Your task to perform on an android device: turn off priority inbox in the gmail app Image 0: 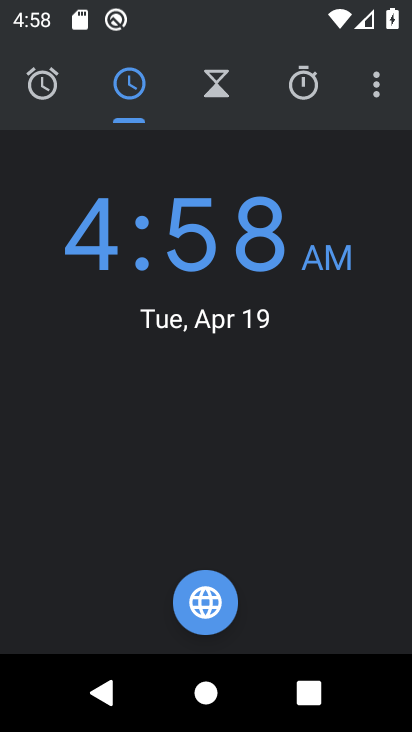
Step 0: press home button
Your task to perform on an android device: turn off priority inbox in the gmail app Image 1: 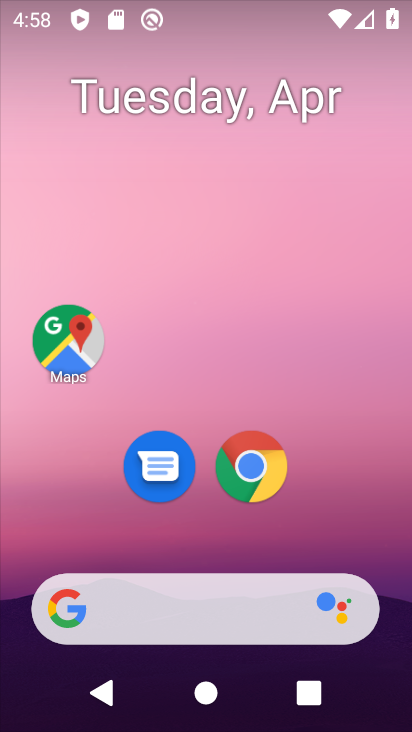
Step 1: drag from (207, 550) to (325, 0)
Your task to perform on an android device: turn off priority inbox in the gmail app Image 2: 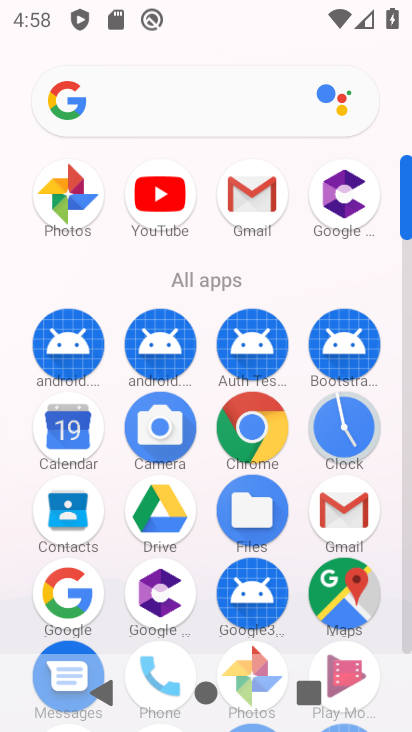
Step 2: click (325, 520)
Your task to perform on an android device: turn off priority inbox in the gmail app Image 3: 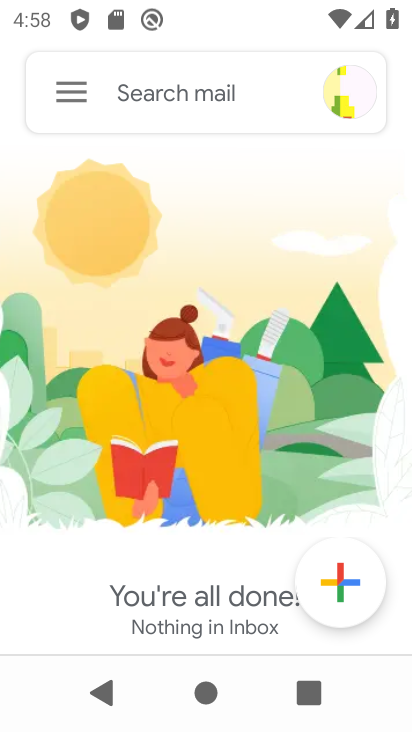
Step 3: click (61, 101)
Your task to perform on an android device: turn off priority inbox in the gmail app Image 4: 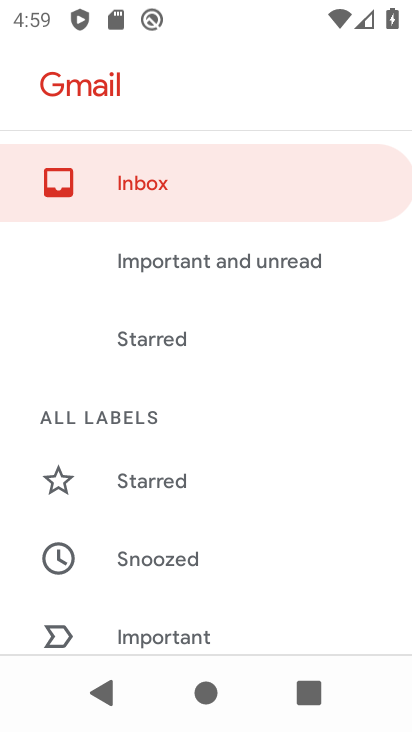
Step 4: drag from (147, 615) to (291, 14)
Your task to perform on an android device: turn off priority inbox in the gmail app Image 5: 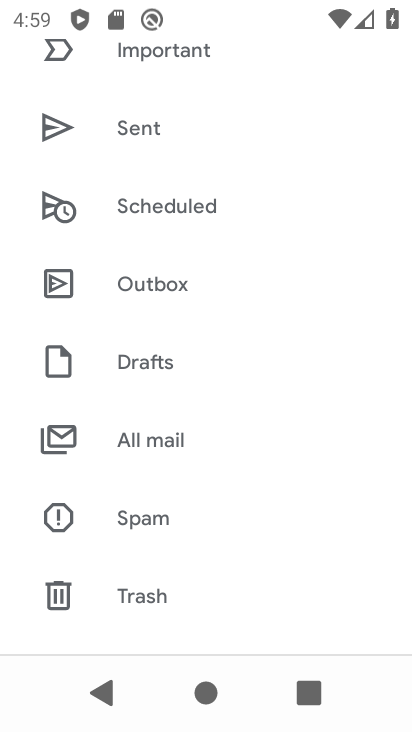
Step 5: drag from (130, 558) to (308, 23)
Your task to perform on an android device: turn off priority inbox in the gmail app Image 6: 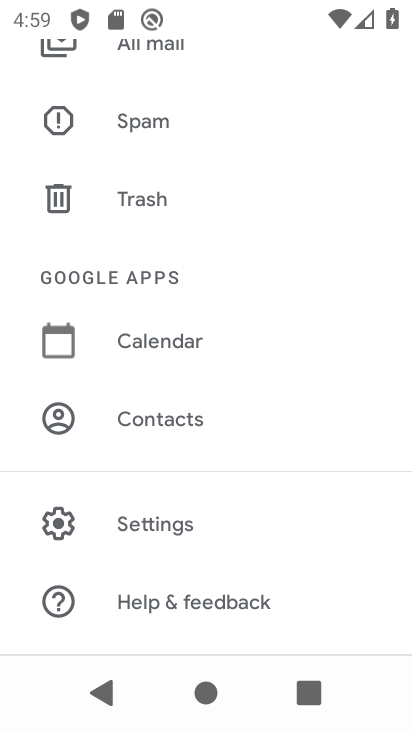
Step 6: click (122, 517)
Your task to perform on an android device: turn off priority inbox in the gmail app Image 7: 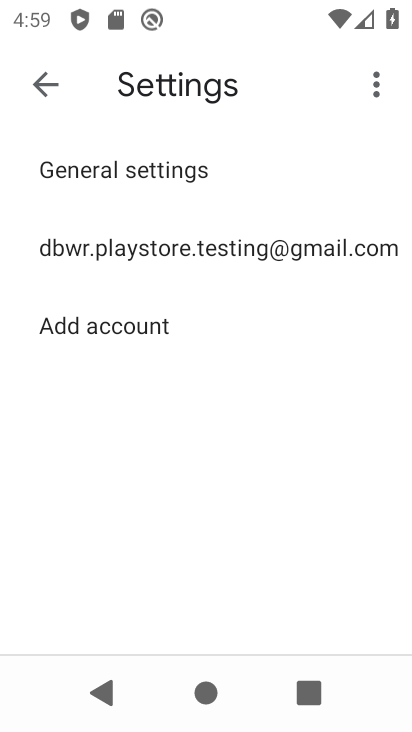
Step 7: click (86, 242)
Your task to perform on an android device: turn off priority inbox in the gmail app Image 8: 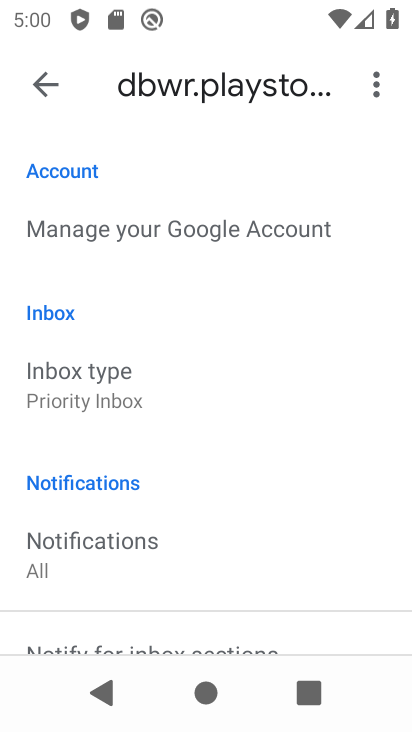
Step 8: click (110, 376)
Your task to perform on an android device: turn off priority inbox in the gmail app Image 9: 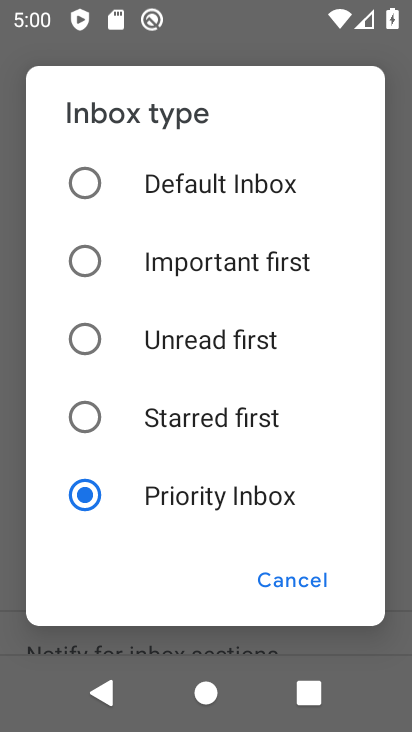
Step 9: click (203, 404)
Your task to perform on an android device: turn off priority inbox in the gmail app Image 10: 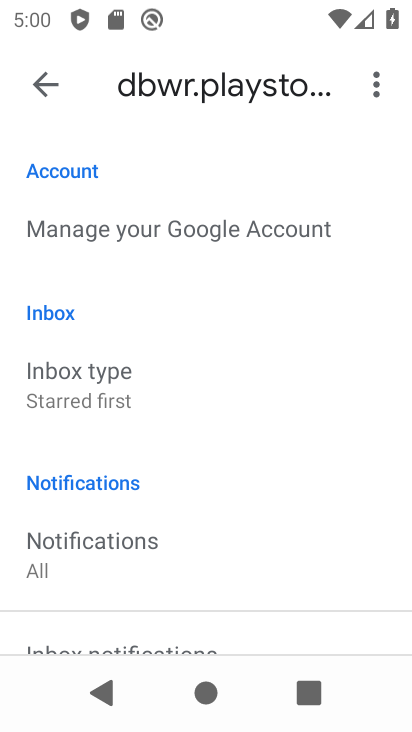
Step 10: task complete